Your task to perform on an android device: Go to Maps Image 0: 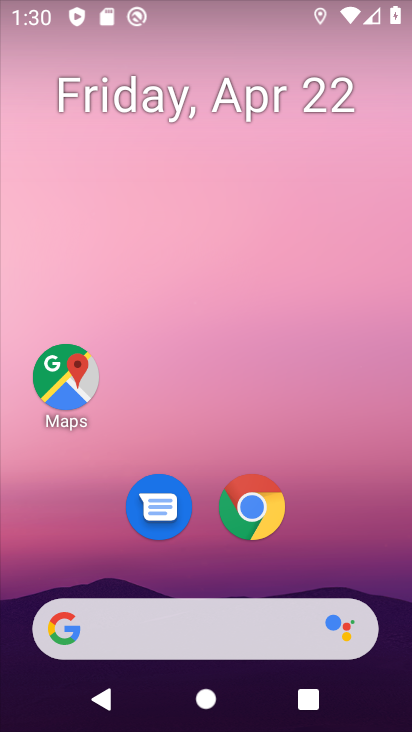
Step 0: drag from (184, 645) to (364, 117)
Your task to perform on an android device: Go to Maps Image 1: 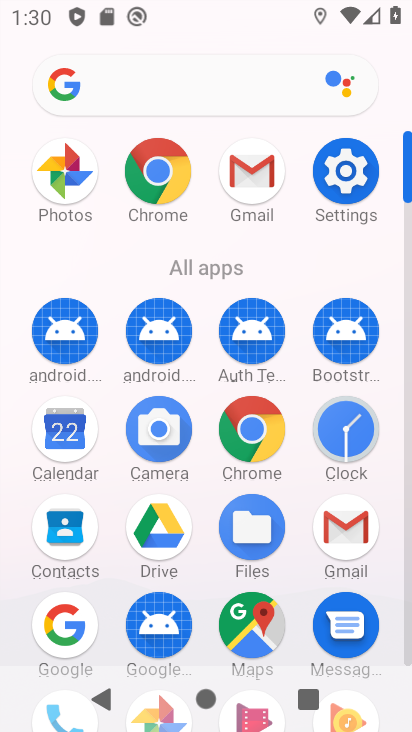
Step 1: click (248, 636)
Your task to perform on an android device: Go to Maps Image 2: 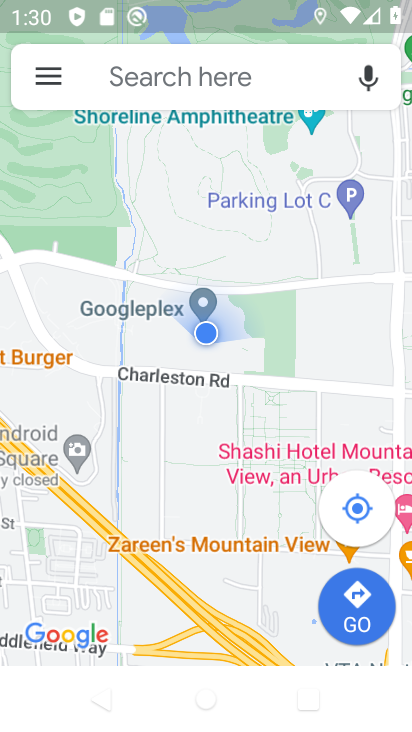
Step 2: task complete